Your task to perform on an android device: change keyboard looks Image 0: 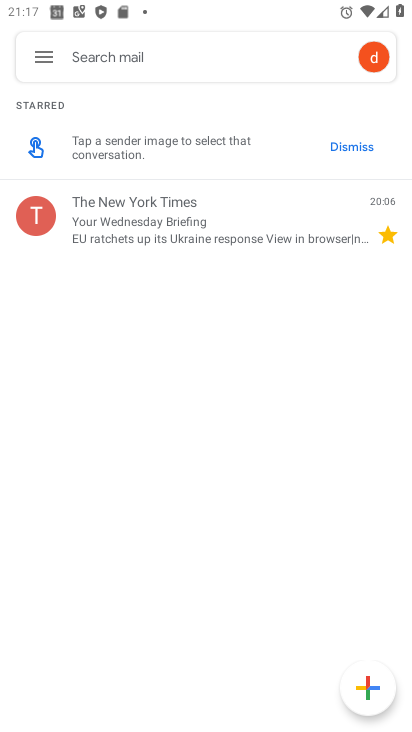
Step 0: press home button
Your task to perform on an android device: change keyboard looks Image 1: 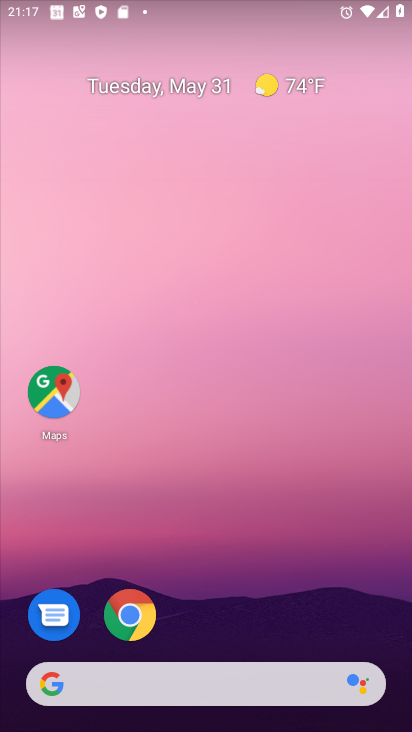
Step 1: drag from (200, 633) to (207, 117)
Your task to perform on an android device: change keyboard looks Image 2: 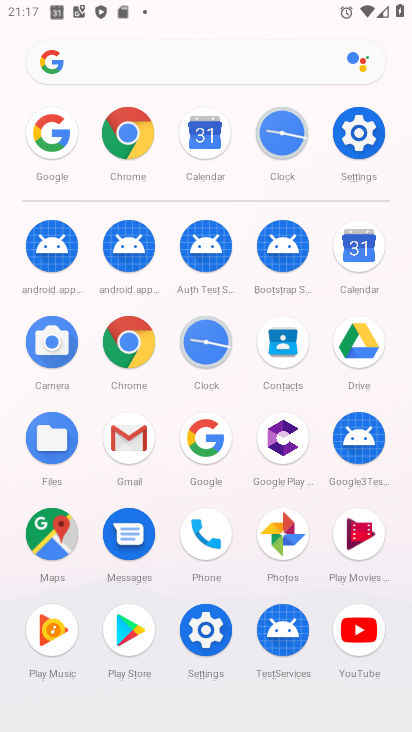
Step 2: click (334, 128)
Your task to perform on an android device: change keyboard looks Image 3: 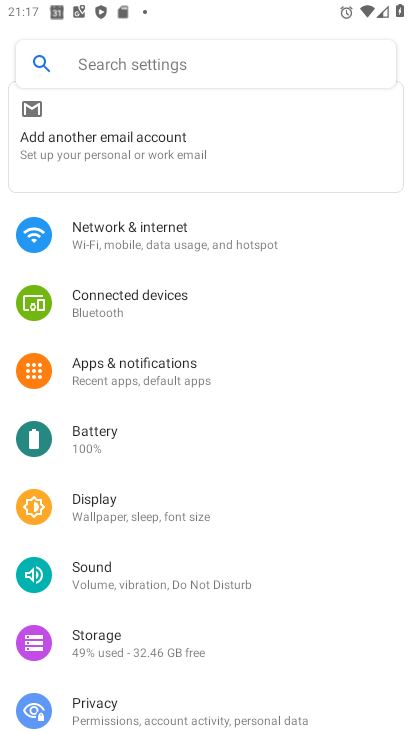
Step 3: drag from (177, 588) to (178, 235)
Your task to perform on an android device: change keyboard looks Image 4: 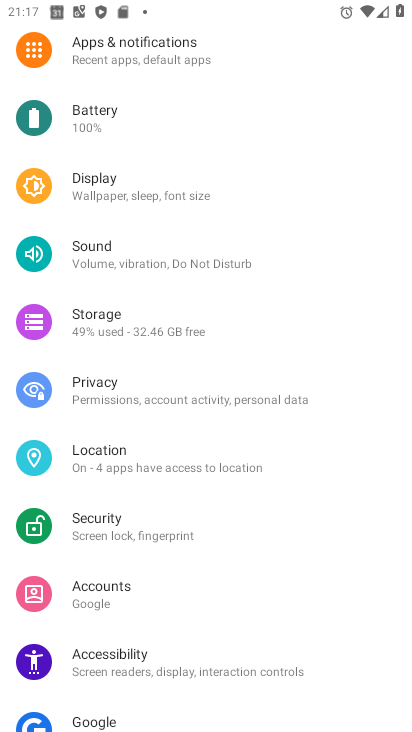
Step 4: drag from (177, 554) to (216, 179)
Your task to perform on an android device: change keyboard looks Image 5: 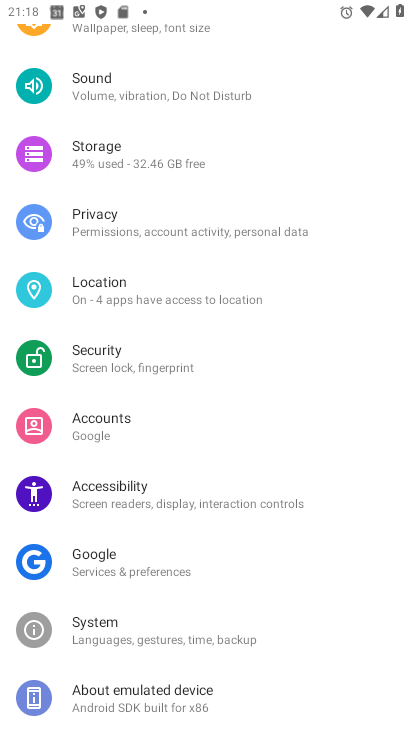
Step 5: click (154, 639)
Your task to perform on an android device: change keyboard looks Image 6: 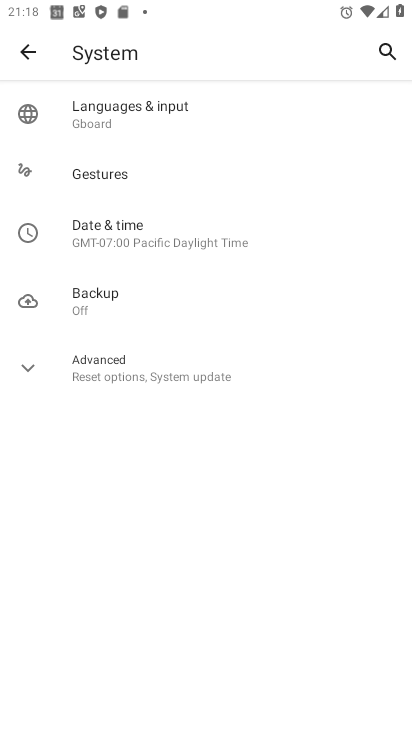
Step 6: click (137, 120)
Your task to perform on an android device: change keyboard looks Image 7: 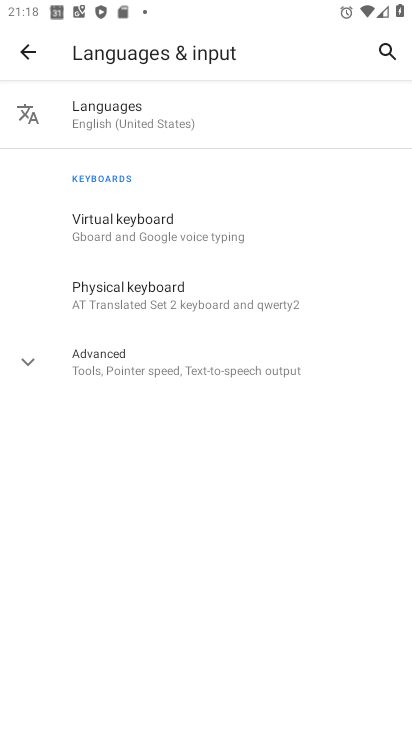
Step 7: click (136, 232)
Your task to perform on an android device: change keyboard looks Image 8: 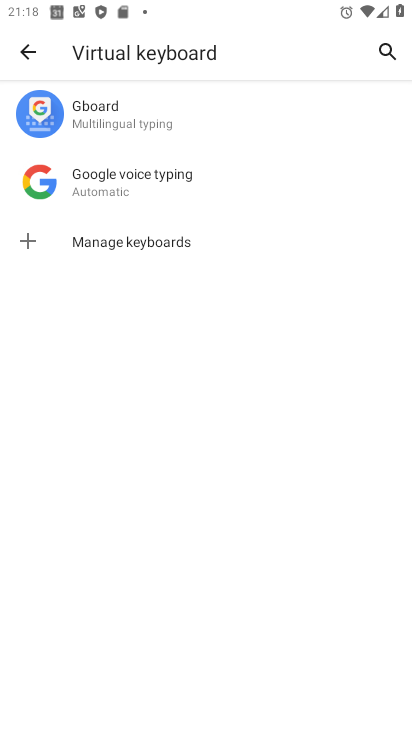
Step 8: click (124, 125)
Your task to perform on an android device: change keyboard looks Image 9: 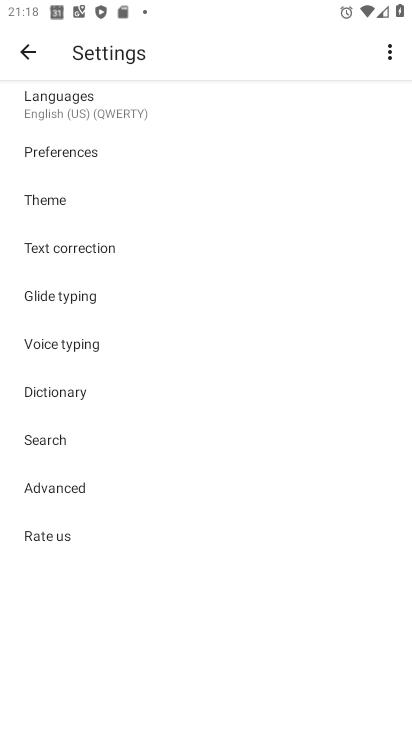
Step 9: click (106, 207)
Your task to perform on an android device: change keyboard looks Image 10: 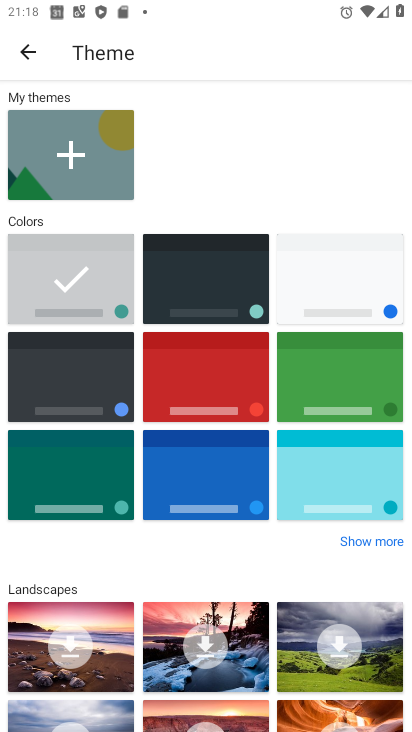
Step 10: click (341, 296)
Your task to perform on an android device: change keyboard looks Image 11: 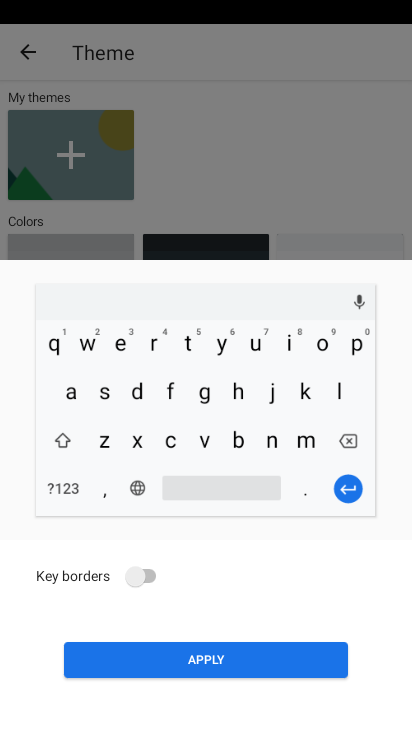
Step 11: click (322, 666)
Your task to perform on an android device: change keyboard looks Image 12: 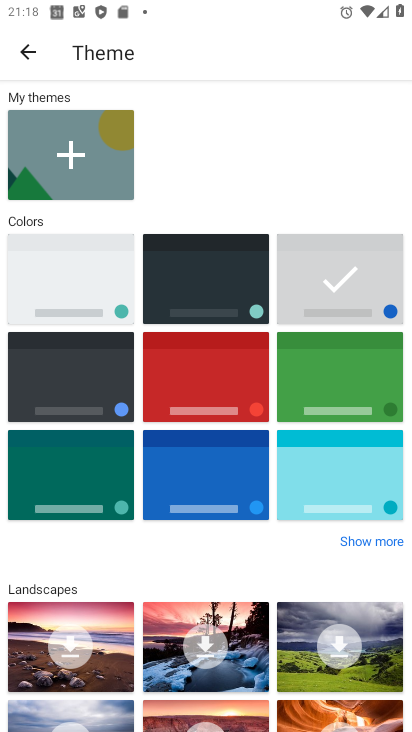
Step 12: task complete